Your task to perform on an android device: Go to ESPN.com Image 0: 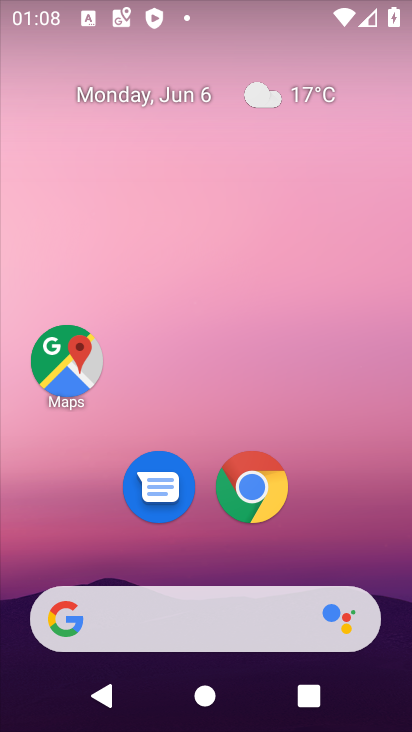
Step 0: click (253, 487)
Your task to perform on an android device: Go to ESPN.com Image 1: 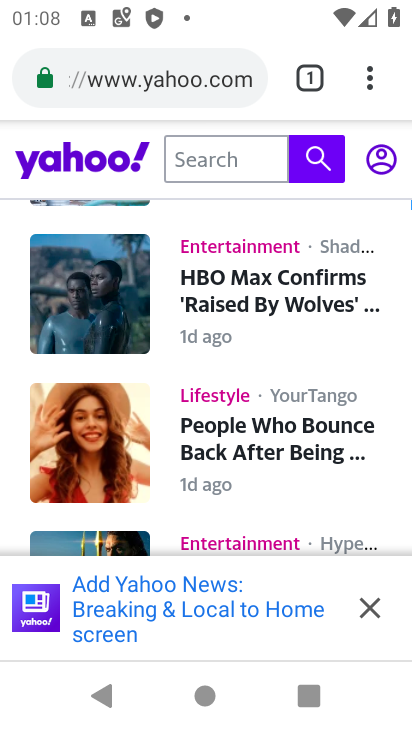
Step 1: click (243, 62)
Your task to perform on an android device: Go to ESPN.com Image 2: 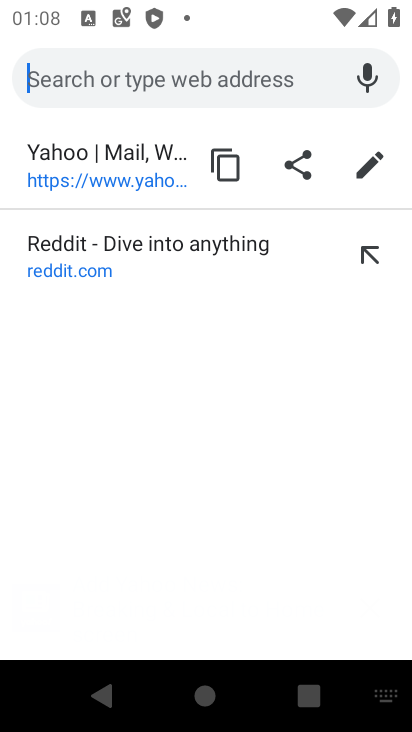
Step 2: type "espn.com"
Your task to perform on an android device: Go to ESPN.com Image 3: 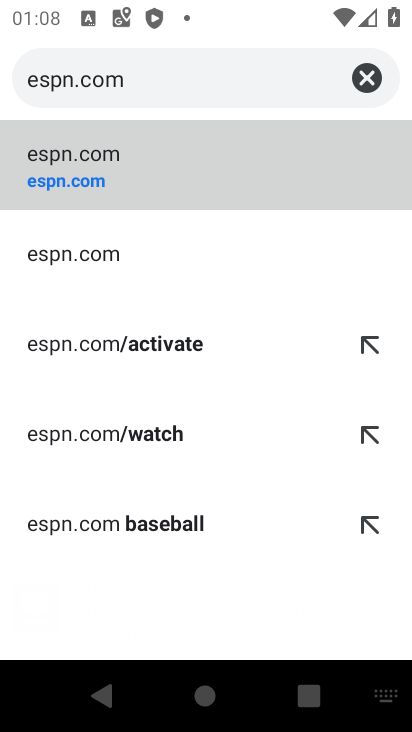
Step 3: click (66, 150)
Your task to perform on an android device: Go to ESPN.com Image 4: 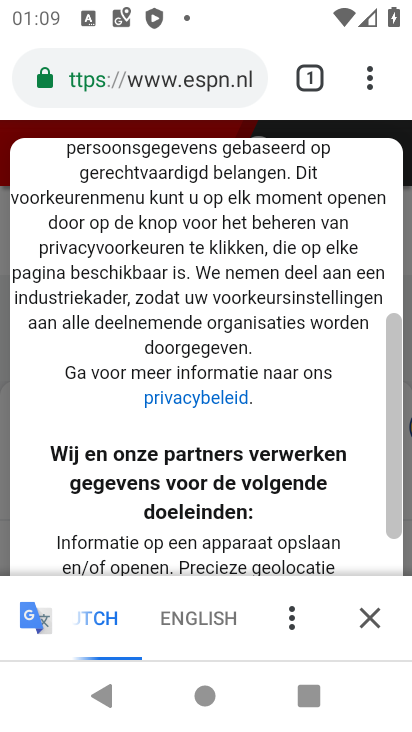
Step 4: click (364, 615)
Your task to perform on an android device: Go to ESPN.com Image 5: 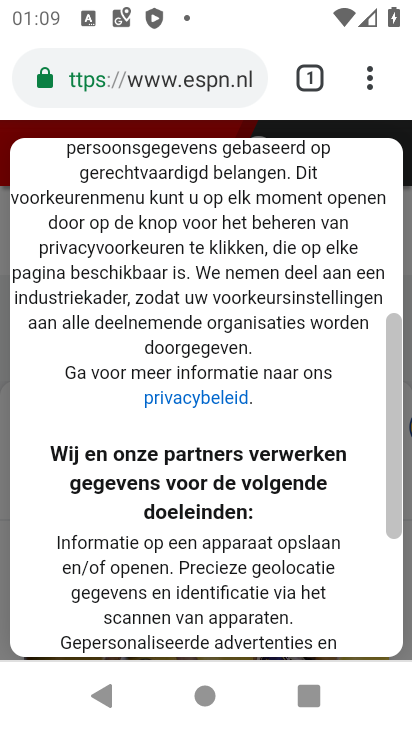
Step 5: drag from (287, 578) to (298, 29)
Your task to perform on an android device: Go to ESPN.com Image 6: 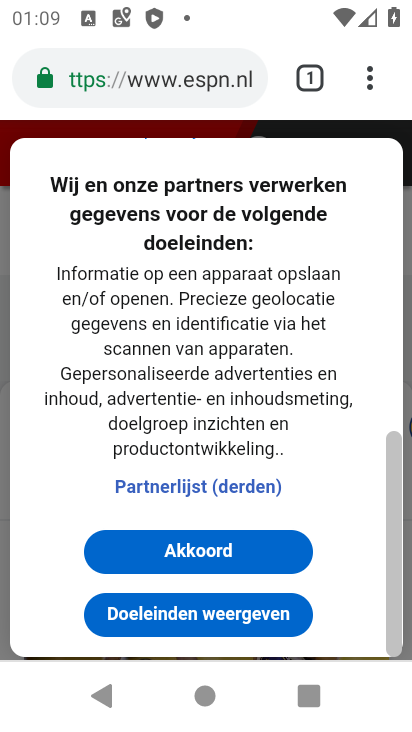
Step 6: click (193, 547)
Your task to perform on an android device: Go to ESPN.com Image 7: 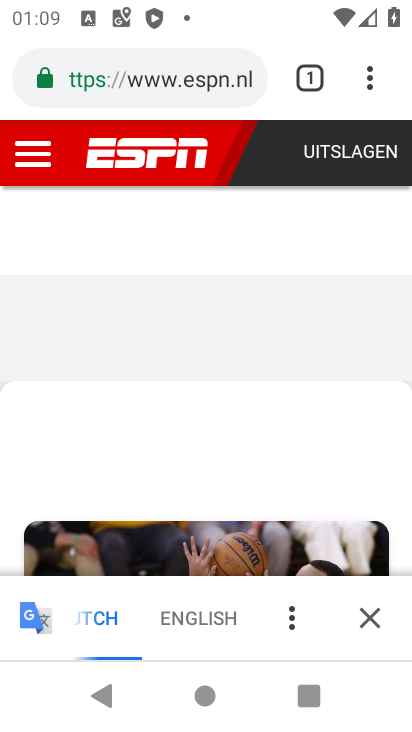
Step 7: task complete